Your task to perform on an android device: empty trash in google photos Image 0: 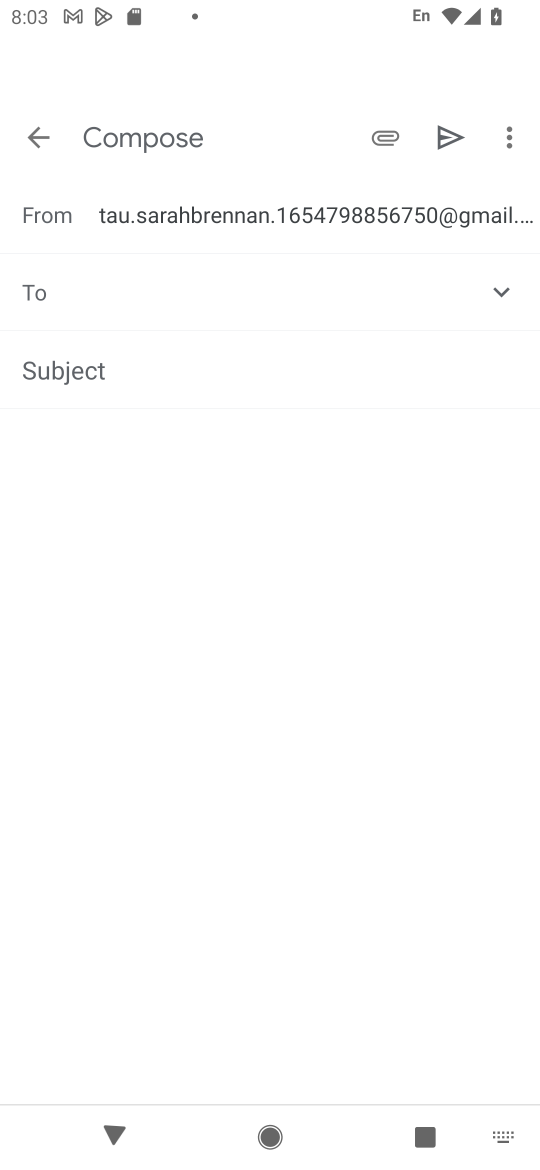
Step 0: press home button
Your task to perform on an android device: empty trash in google photos Image 1: 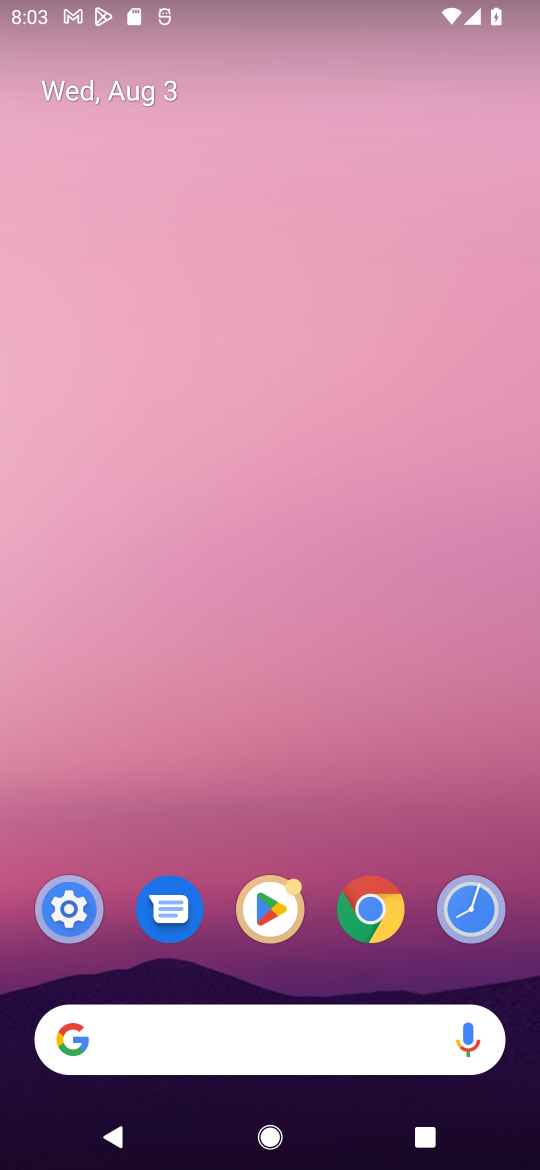
Step 1: drag from (330, 838) to (362, 222)
Your task to perform on an android device: empty trash in google photos Image 2: 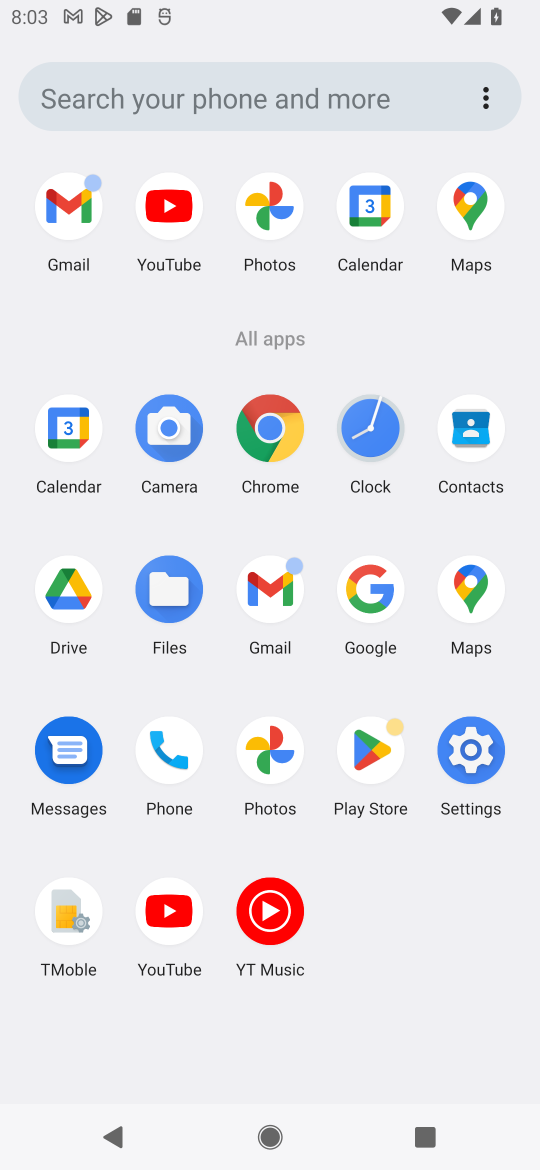
Step 2: click (271, 761)
Your task to perform on an android device: empty trash in google photos Image 3: 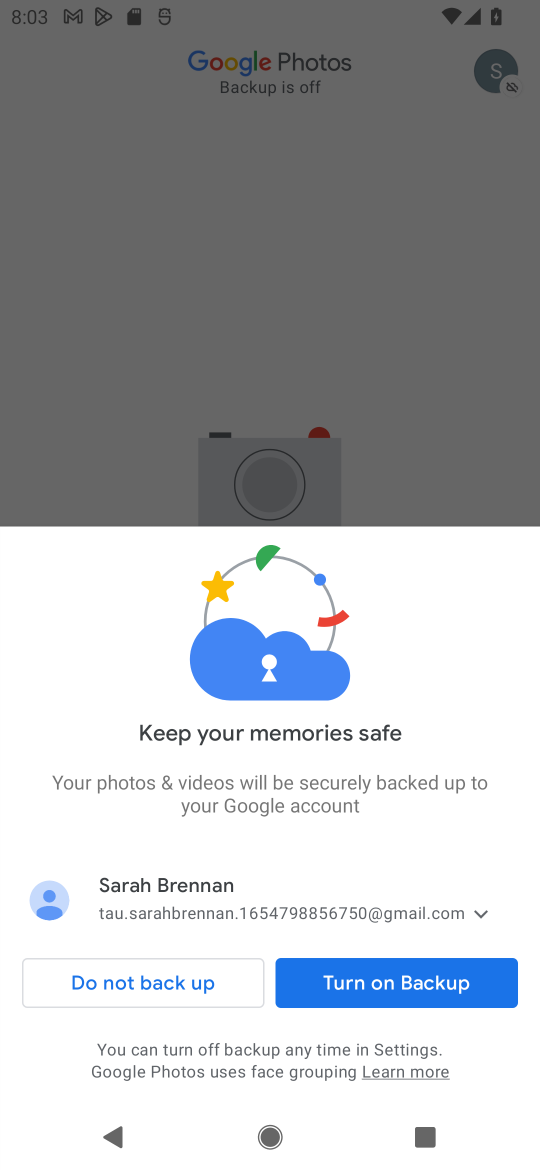
Step 3: click (219, 989)
Your task to perform on an android device: empty trash in google photos Image 4: 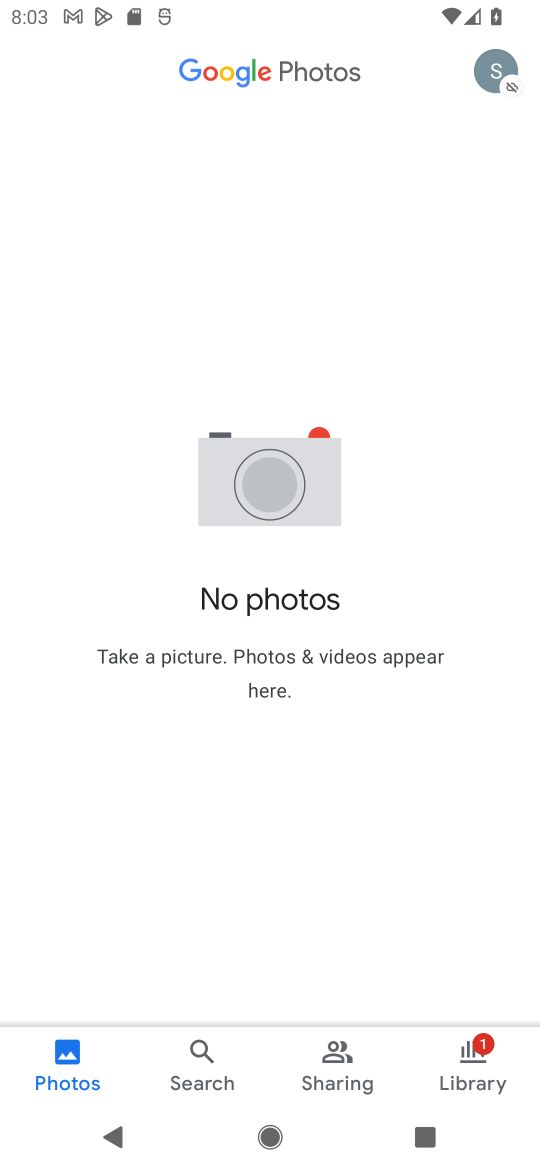
Step 4: click (481, 1050)
Your task to perform on an android device: empty trash in google photos Image 5: 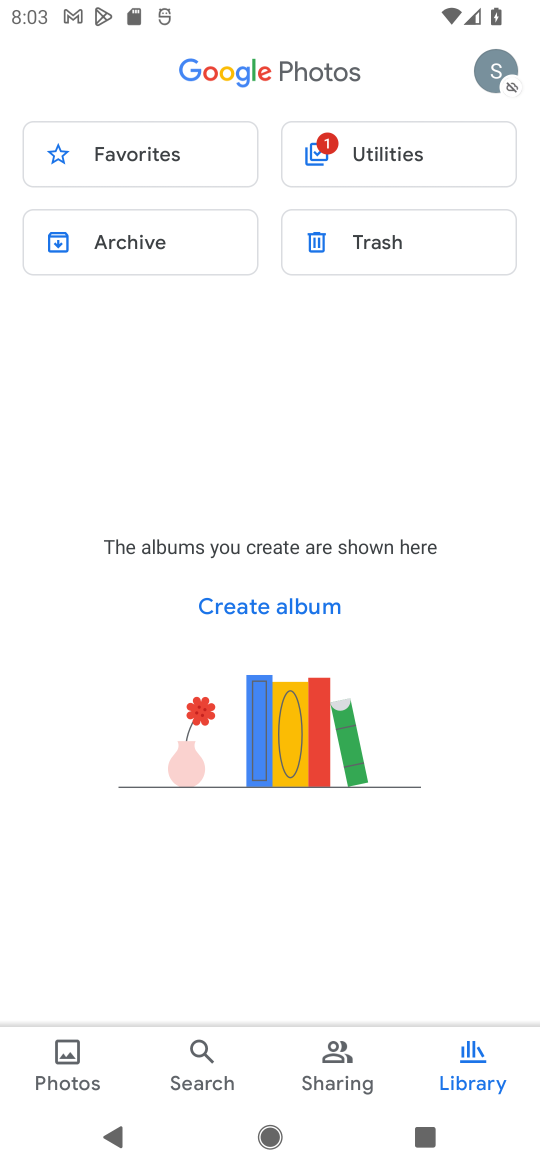
Step 5: click (388, 248)
Your task to perform on an android device: empty trash in google photos Image 6: 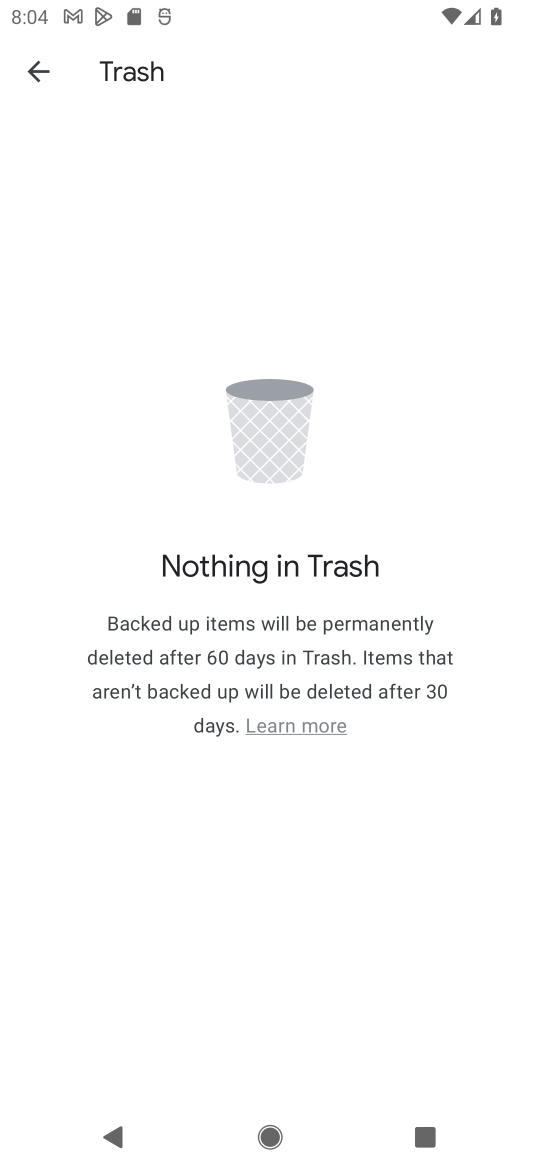
Step 6: task complete